Your task to perform on an android device: check out phone information Image 0: 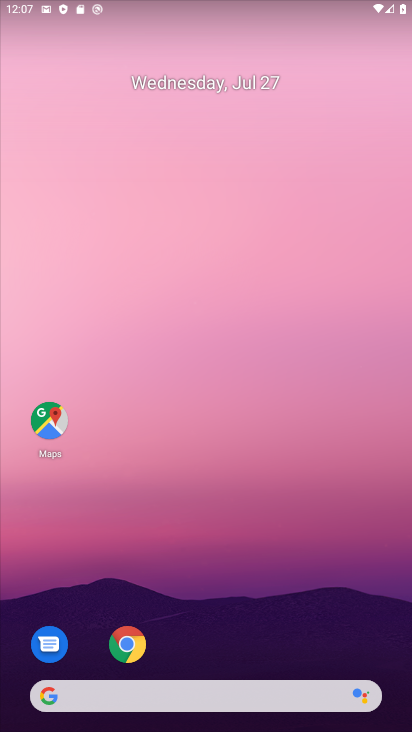
Step 0: drag from (268, 669) to (233, 175)
Your task to perform on an android device: check out phone information Image 1: 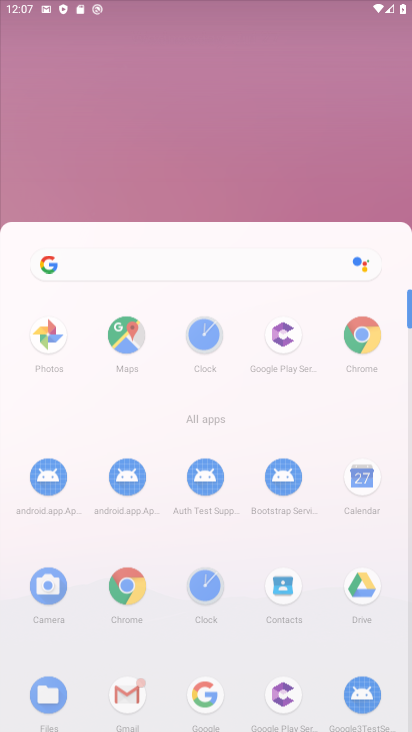
Step 1: drag from (214, 577) to (206, 148)
Your task to perform on an android device: check out phone information Image 2: 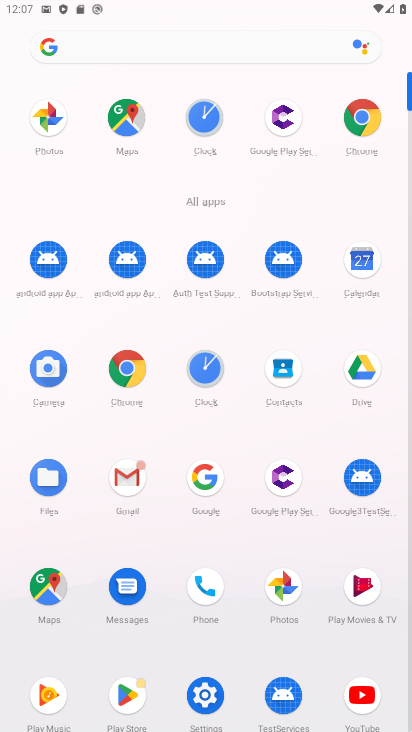
Step 2: click (209, 699)
Your task to perform on an android device: check out phone information Image 3: 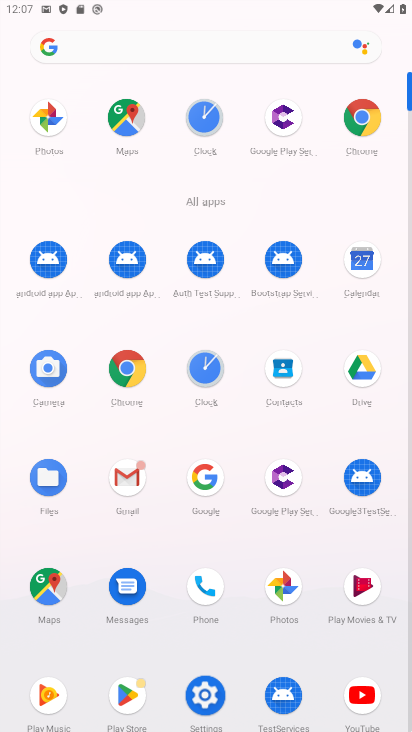
Step 3: click (209, 699)
Your task to perform on an android device: check out phone information Image 4: 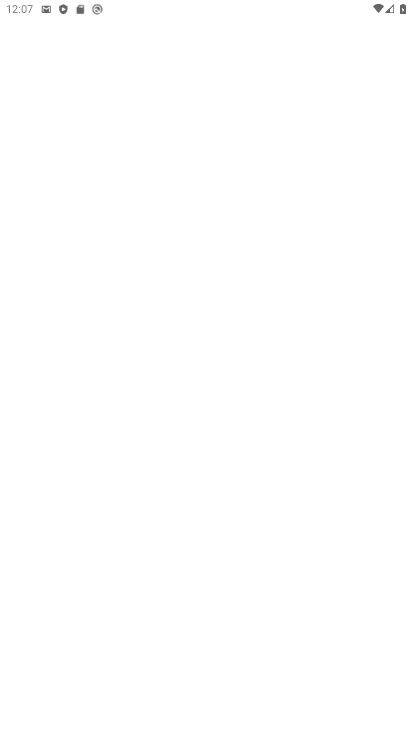
Step 4: click (209, 699)
Your task to perform on an android device: check out phone information Image 5: 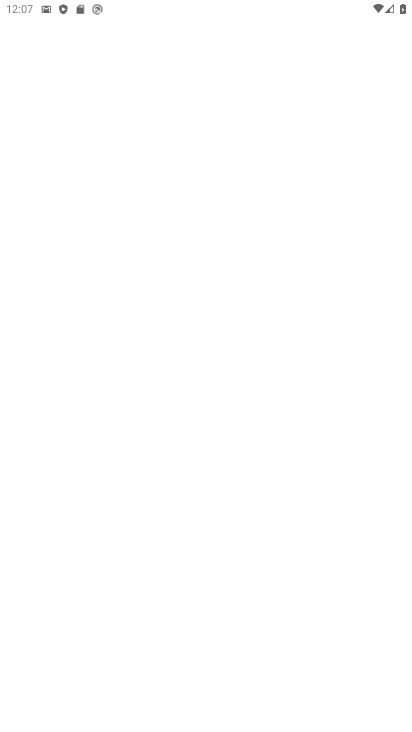
Step 5: click (208, 700)
Your task to perform on an android device: check out phone information Image 6: 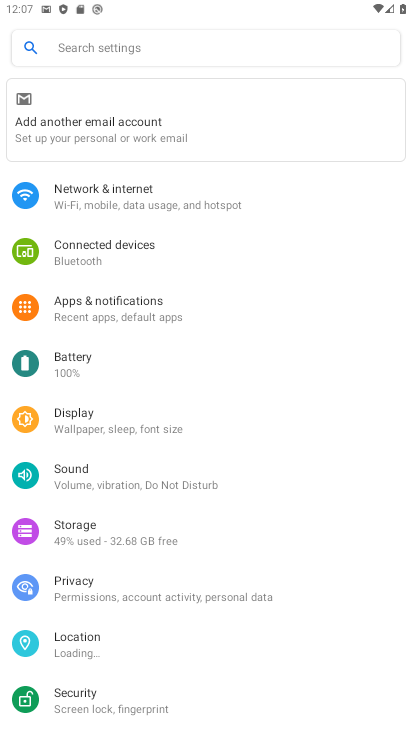
Step 6: drag from (133, 285) to (111, 204)
Your task to perform on an android device: check out phone information Image 7: 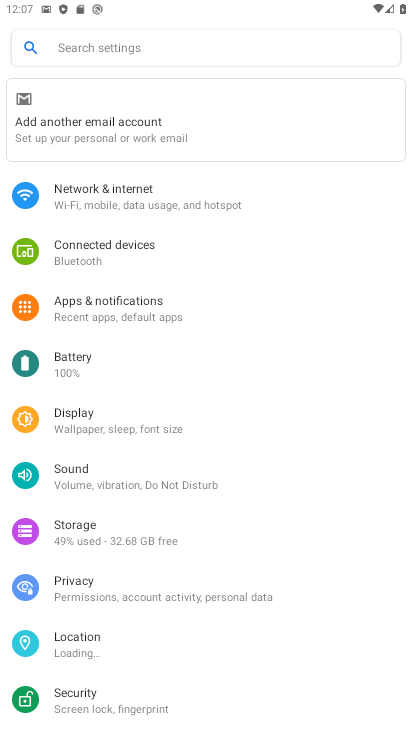
Step 7: drag from (108, 394) to (108, 210)
Your task to perform on an android device: check out phone information Image 8: 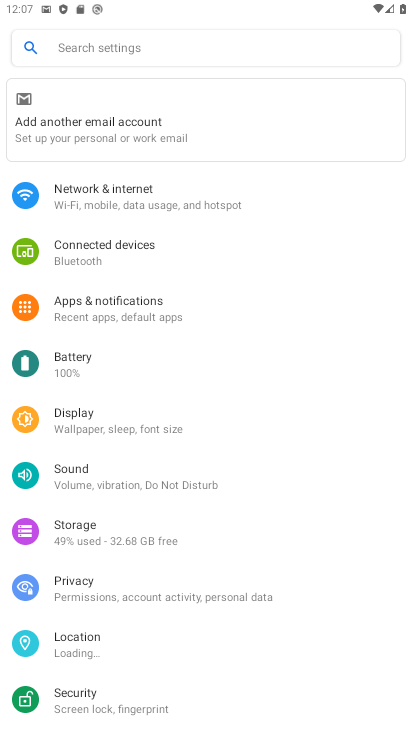
Step 8: drag from (161, 426) to (134, 234)
Your task to perform on an android device: check out phone information Image 9: 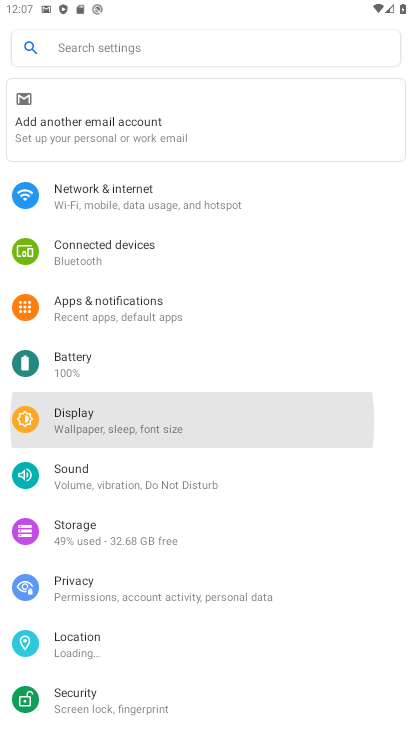
Step 9: drag from (110, 466) to (98, 283)
Your task to perform on an android device: check out phone information Image 10: 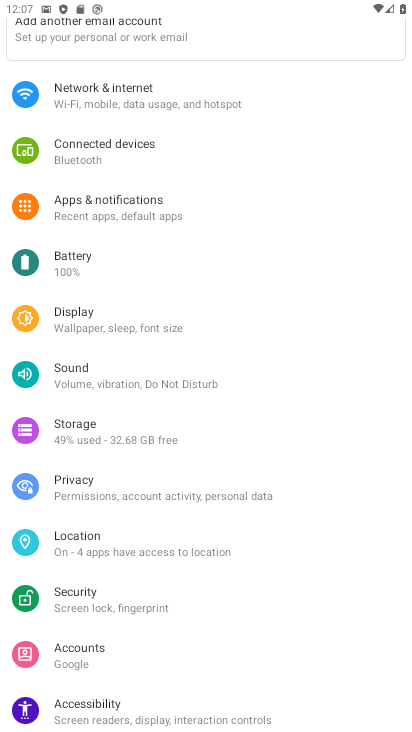
Step 10: drag from (174, 590) to (187, 306)
Your task to perform on an android device: check out phone information Image 11: 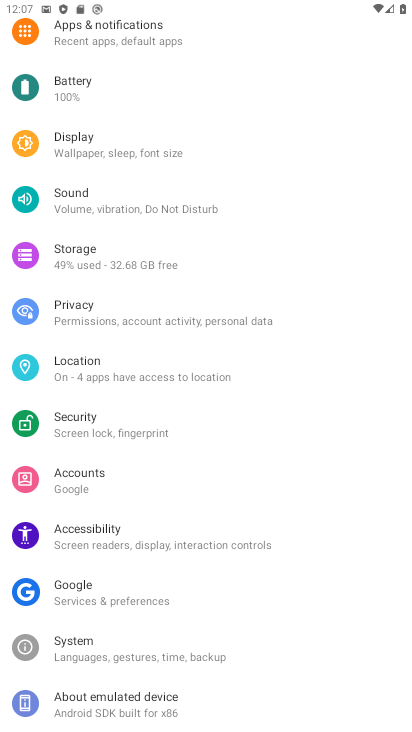
Step 11: click (155, 393)
Your task to perform on an android device: check out phone information Image 12: 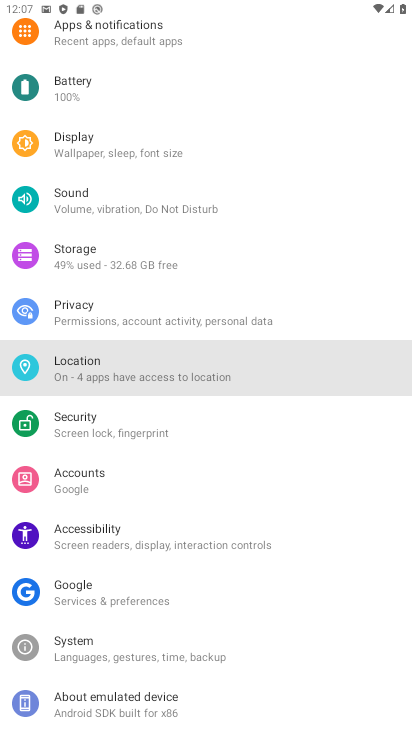
Step 12: click (103, 702)
Your task to perform on an android device: check out phone information Image 13: 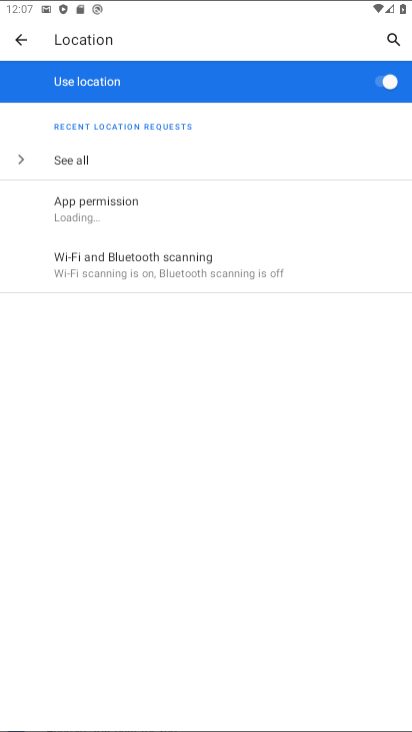
Step 13: click (112, 702)
Your task to perform on an android device: check out phone information Image 14: 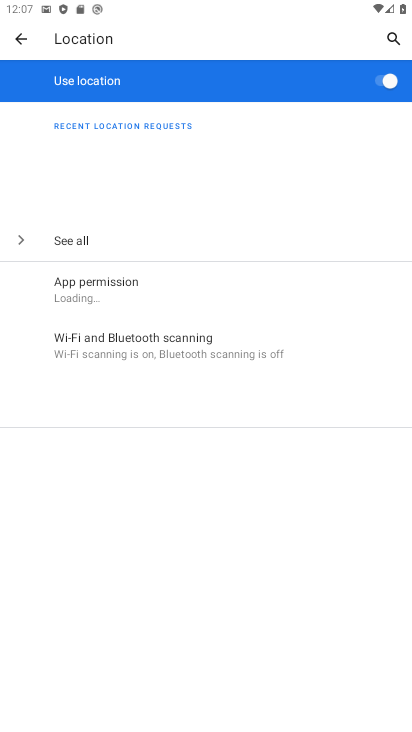
Step 14: click (118, 703)
Your task to perform on an android device: check out phone information Image 15: 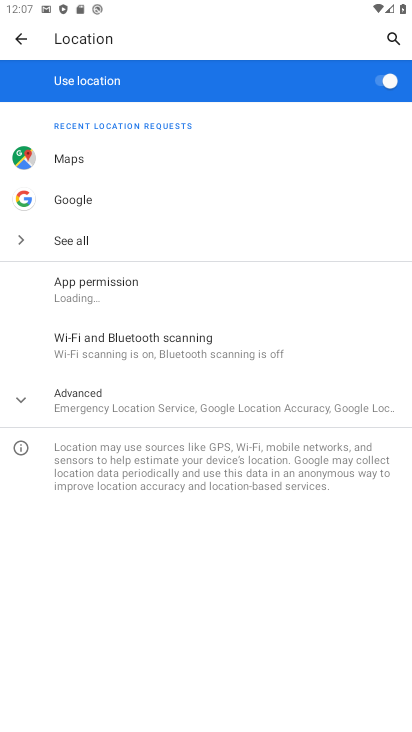
Step 15: click (15, 32)
Your task to perform on an android device: check out phone information Image 16: 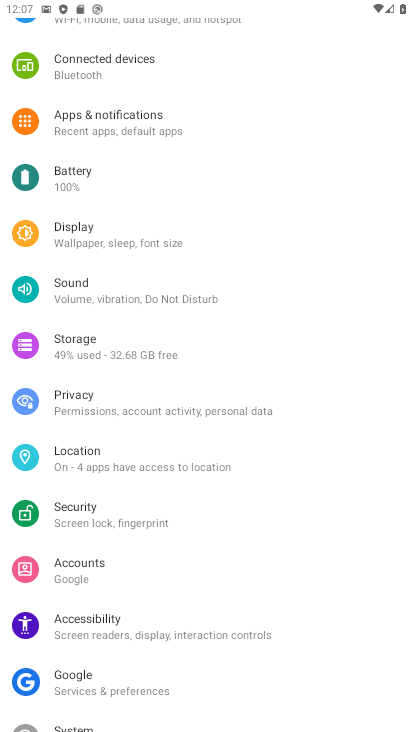
Step 16: drag from (82, 436) to (57, 340)
Your task to perform on an android device: check out phone information Image 17: 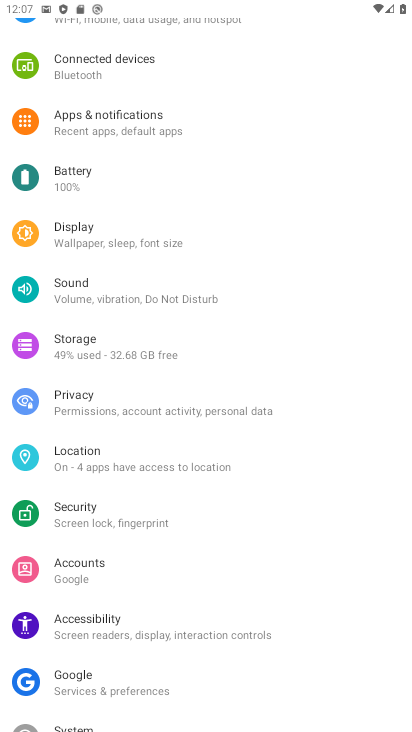
Step 17: drag from (166, 624) to (122, 412)
Your task to perform on an android device: check out phone information Image 18: 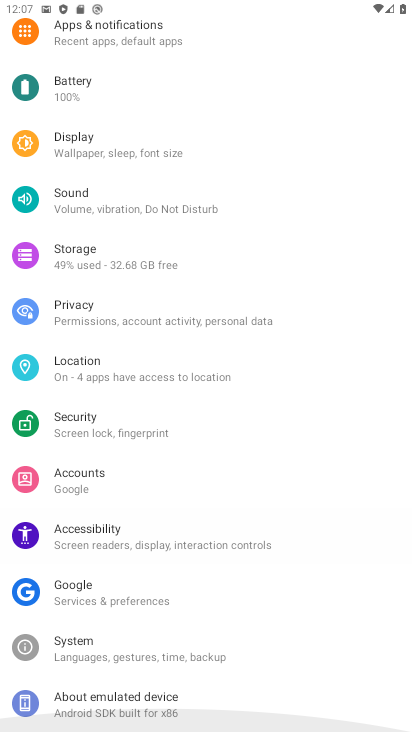
Step 18: drag from (135, 640) to (73, 304)
Your task to perform on an android device: check out phone information Image 19: 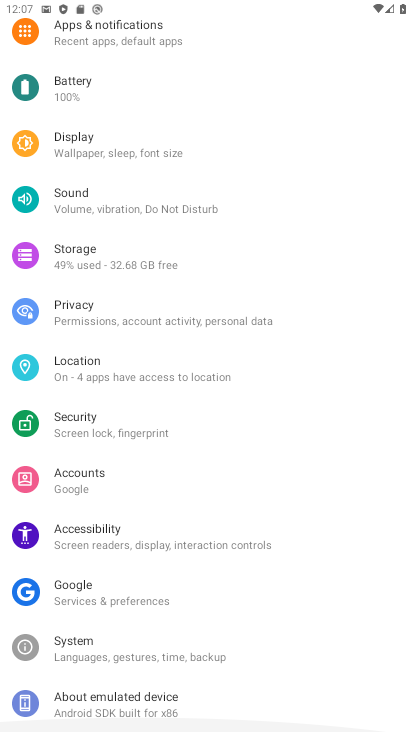
Step 19: drag from (122, 531) to (116, 372)
Your task to perform on an android device: check out phone information Image 20: 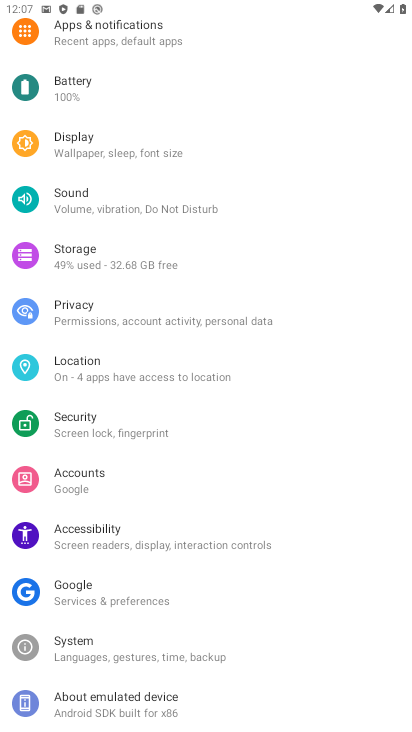
Step 20: click (121, 715)
Your task to perform on an android device: check out phone information Image 21: 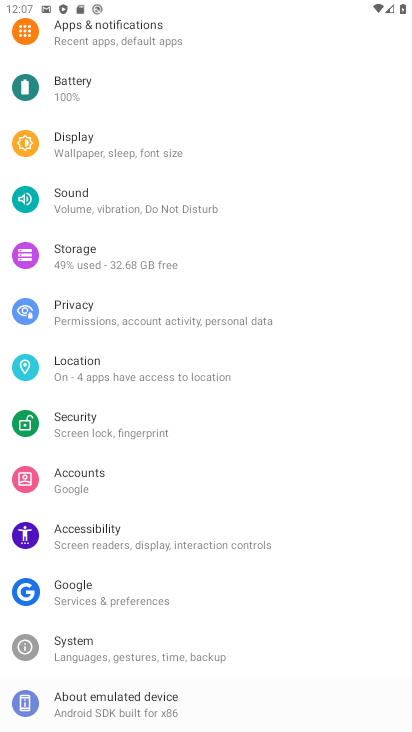
Step 21: click (119, 714)
Your task to perform on an android device: check out phone information Image 22: 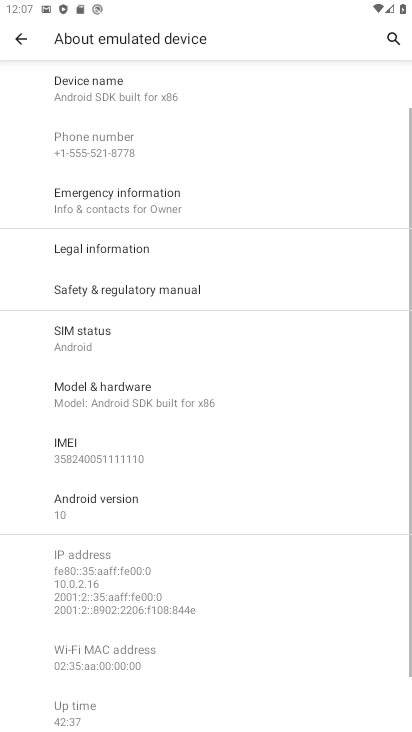
Step 22: task complete